Your task to perform on an android device: move an email to a new category in the gmail app Image 0: 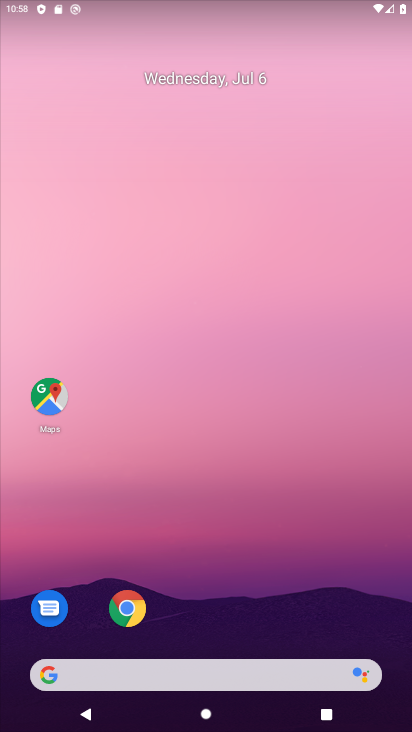
Step 0: drag from (298, 718) to (224, 189)
Your task to perform on an android device: move an email to a new category in the gmail app Image 1: 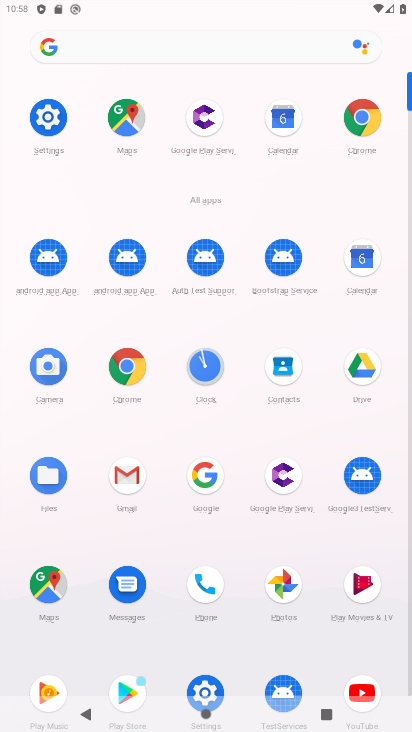
Step 1: click (121, 474)
Your task to perform on an android device: move an email to a new category in the gmail app Image 2: 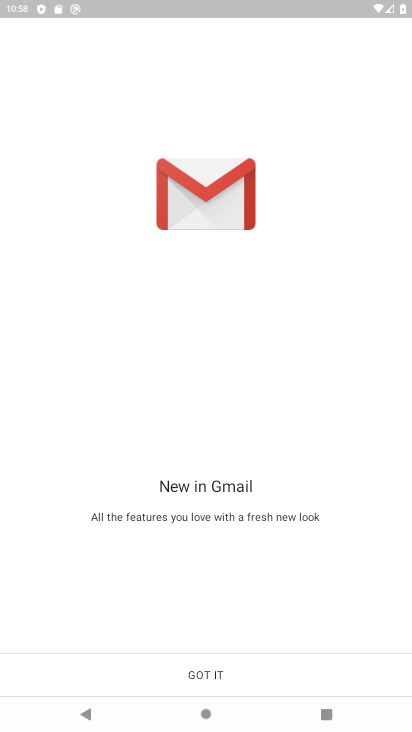
Step 2: click (237, 676)
Your task to perform on an android device: move an email to a new category in the gmail app Image 3: 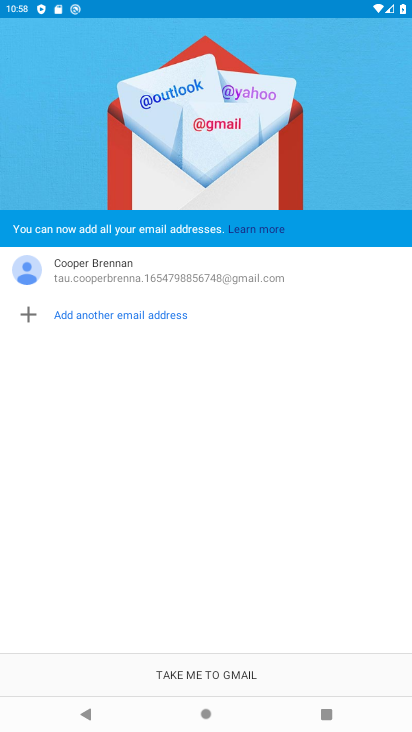
Step 3: click (220, 674)
Your task to perform on an android device: move an email to a new category in the gmail app Image 4: 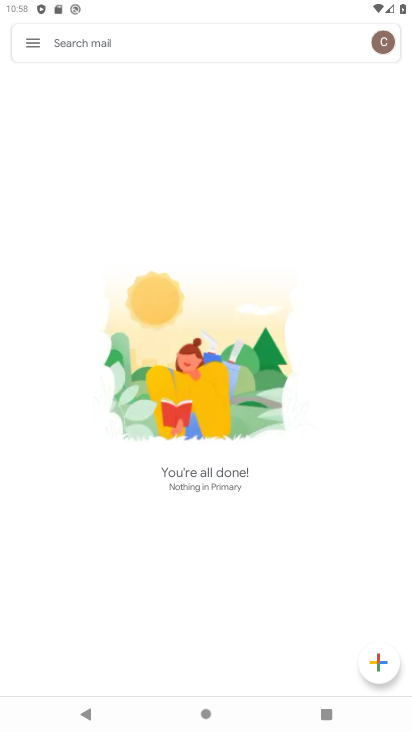
Step 4: click (25, 41)
Your task to perform on an android device: move an email to a new category in the gmail app Image 5: 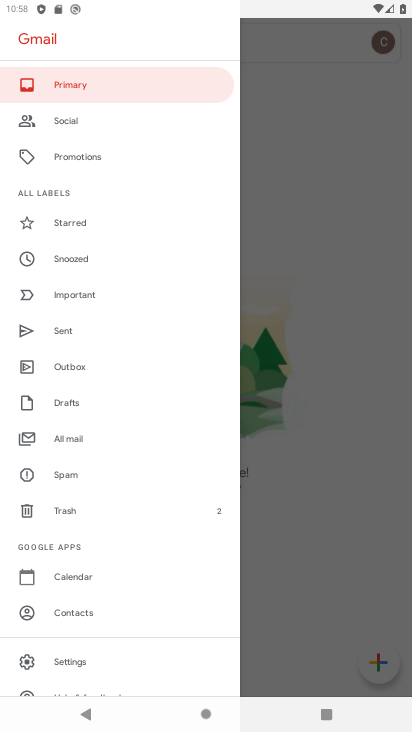
Step 5: click (80, 451)
Your task to perform on an android device: move an email to a new category in the gmail app Image 6: 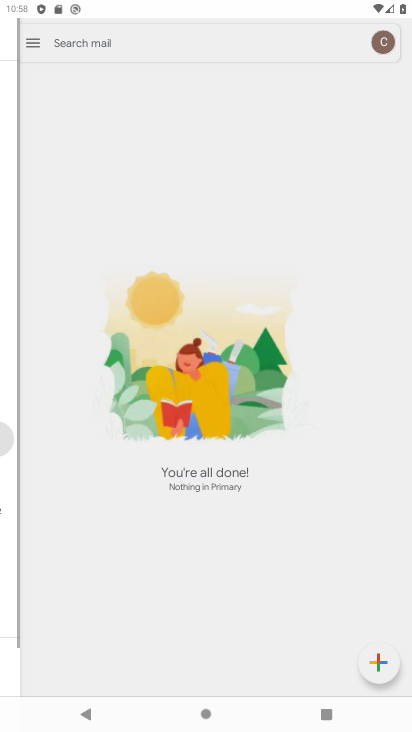
Step 6: click (72, 441)
Your task to perform on an android device: move an email to a new category in the gmail app Image 7: 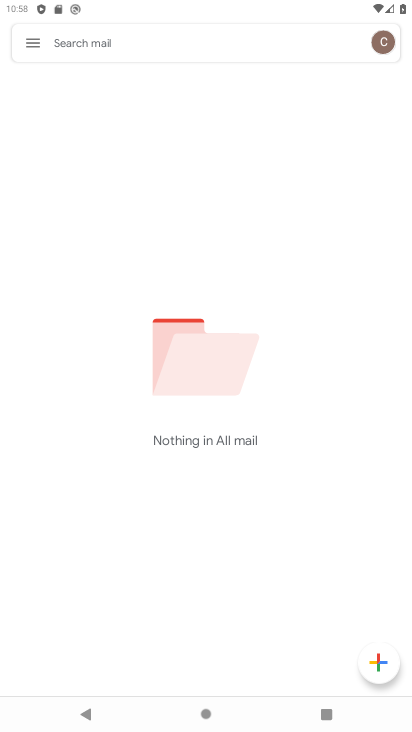
Step 7: task complete